Your task to perform on an android device: clear all cookies in the chrome app Image 0: 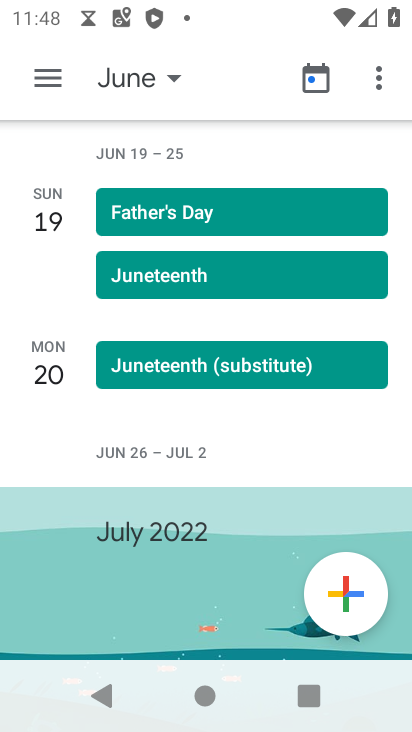
Step 0: press home button
Your task to perform on an android device: clear all cookies in the chrome app Image 1: 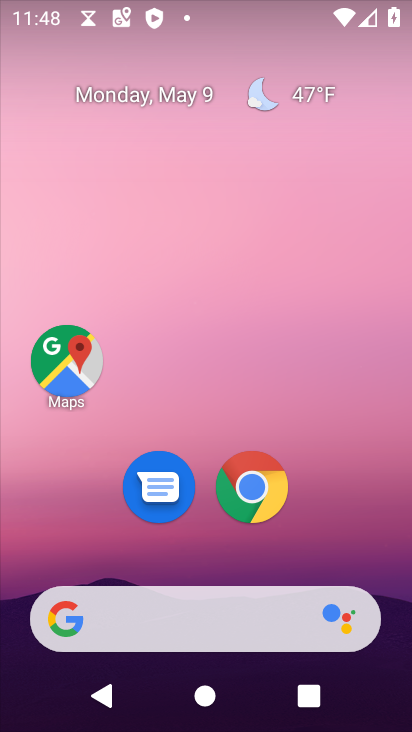
Step 1: click (257, 483)
Your task to perform on an android device: clear all cookies in the chrome app Image 2: 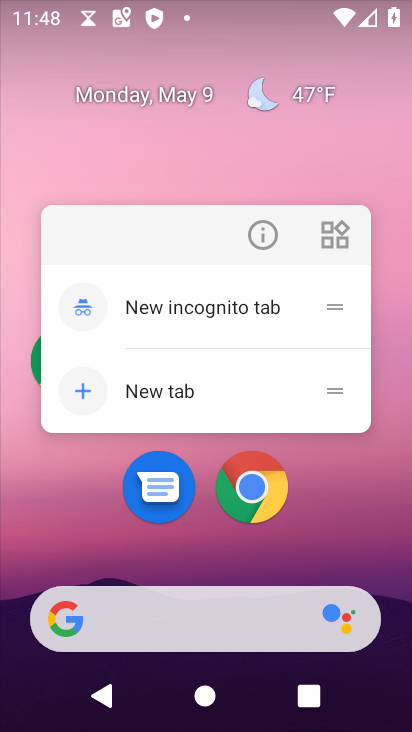
Step 2: click (241, 491)
Your task to perform on an android device: clear all cookies in the chrome app Image 3: 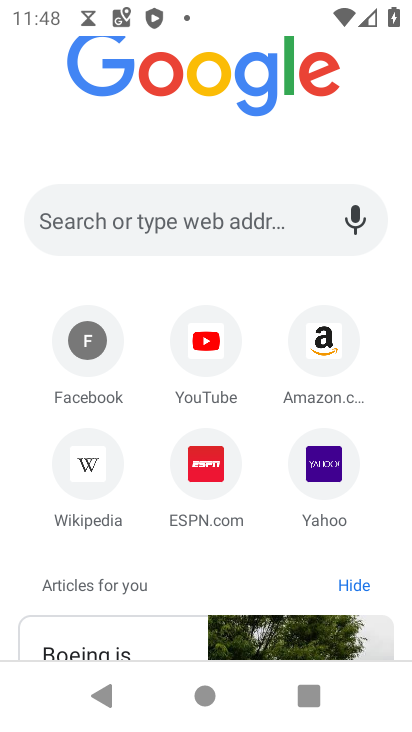
Step 3: drag from (249, 153) to (300, 531)
Your task to perform on an android device: clear all cookies in the chrome app Image 4: 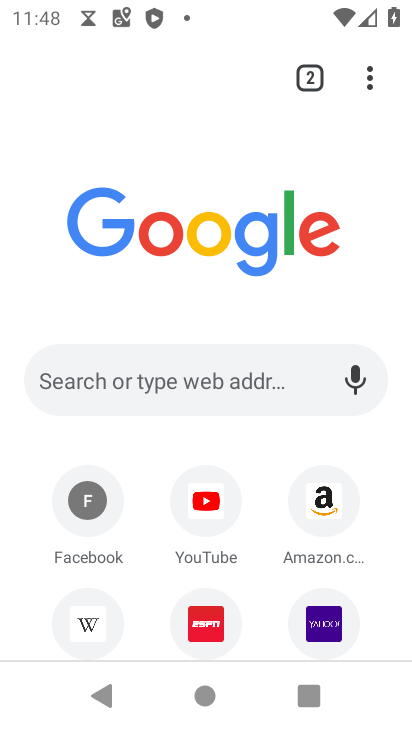
Step 4: click (369, 74)
Your task to perform on an android device: clear all cookies in the chrome app Image 5: 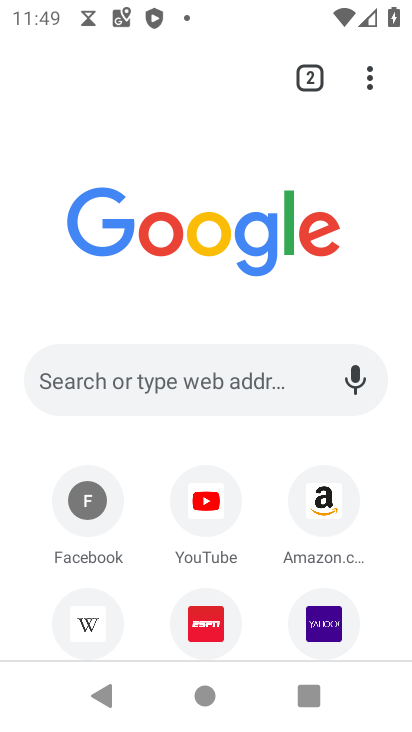
Step 5: click (368, 72)
Your task to perform on an android device: clear all cookies in the chrome app Image 6: 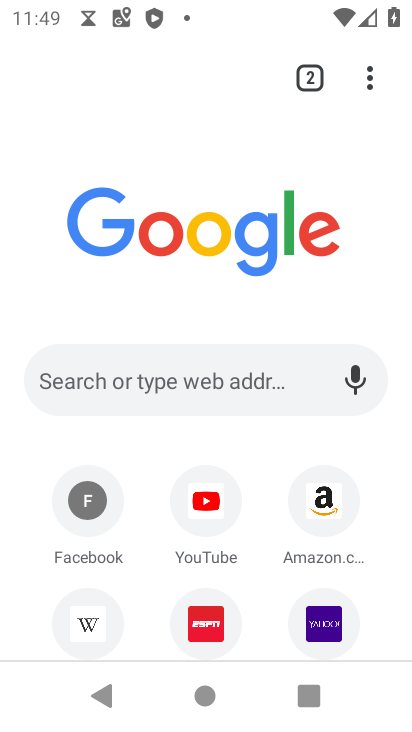
Step 6: click (362, 73)
Your task to perform on an android device: clear all cookies in the chrome app Image 7: 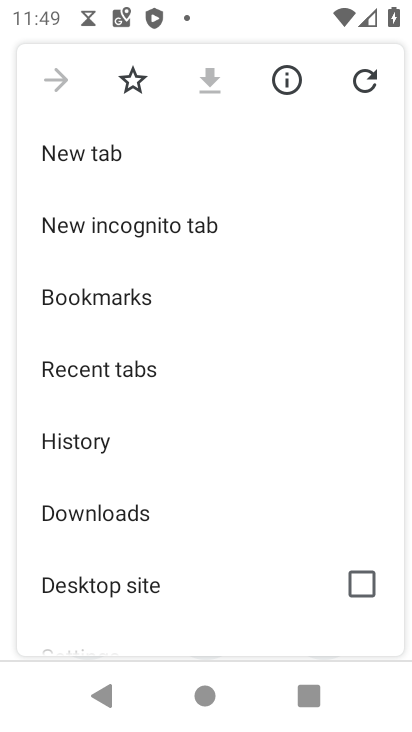
Step 7: click (129, 436)
Your task to perform on an android device: clear all cookies in the chrome app Image 8: 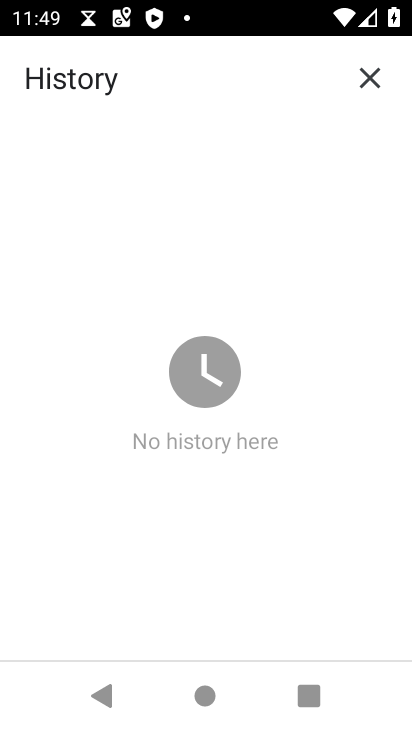
Step 8: task complete